Your task to perform on an android device: Open Chrome and go to settings Image 0: 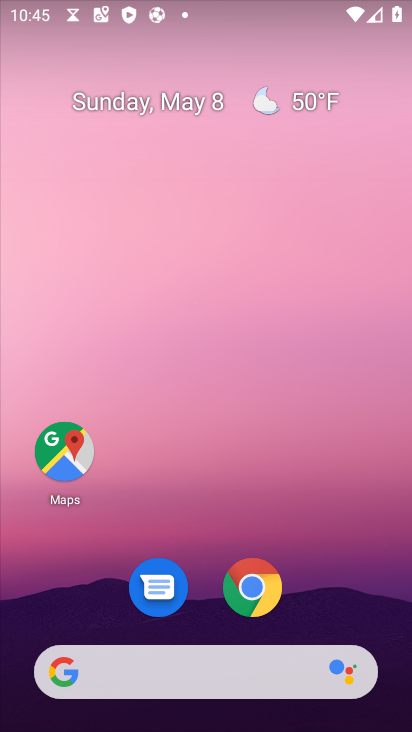
Step 0: click (253, 564)
Your task to perform on an android device: Open Chrome and go to settings Image 1: 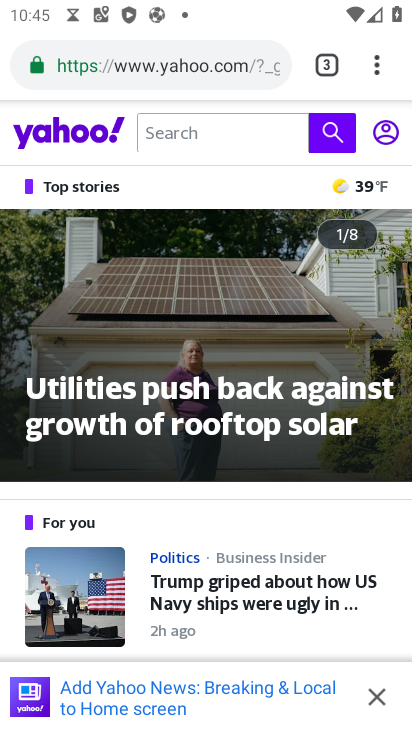
Step 1: task complete